Your task to perform on an android device: Add logitech g pro to the cart on bestbuy.com Image 0: 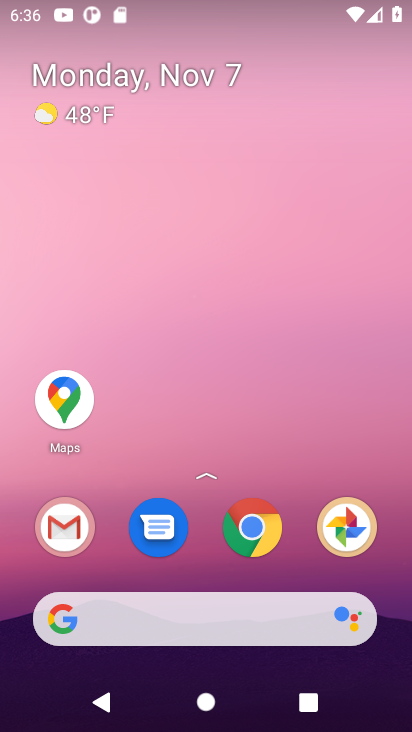
Step 0: click (239, 530)
Your task to perform on an android device: Add logitech g pro to the cart on bestbuy.com Image 1: 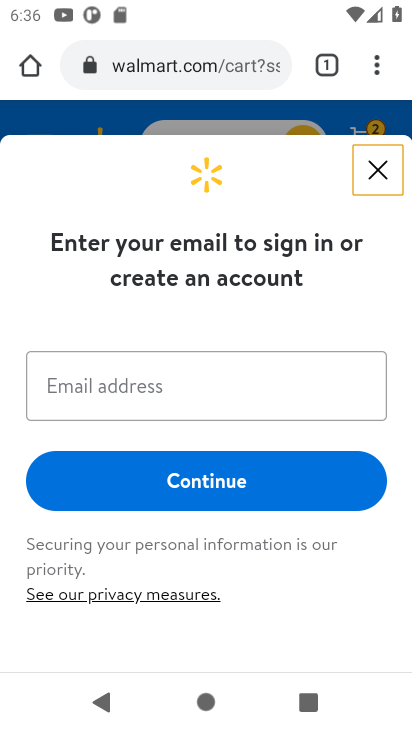
Step 1: click (186, 67)
Your task to perform on an android device: Add logitech g pro to the cart on bestbuy.com Image 2: 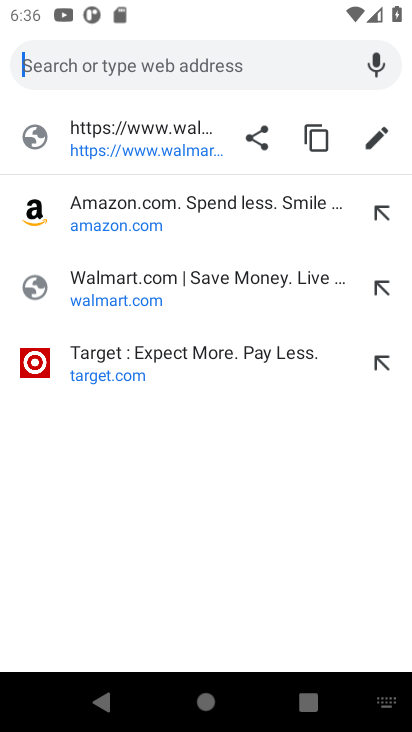
Step 2: type "bestbuy.com"
Your task to perform on an android device: Add logitech g pro to the cart on bestbuy.com Image 3: 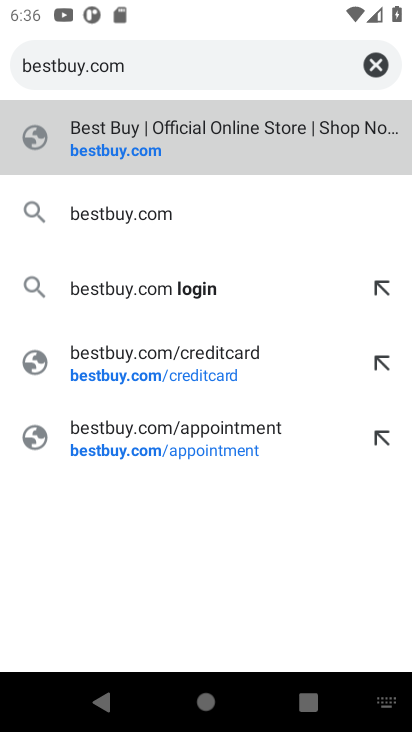
Step 3: click (212, 139)
Your task to perform on an android device: Add logitech g pro to the cart on bestbuy.com Image 4: 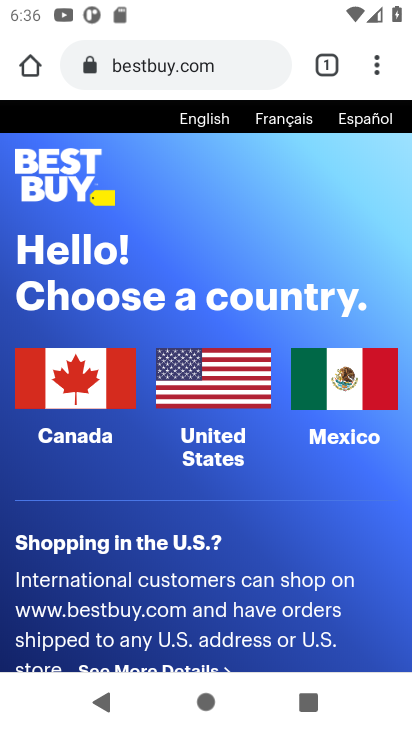
Step 4: click (183, 409)
Your task to perform on an android device: Add logitech g pro to the cart on bestbuy.com Image 5: 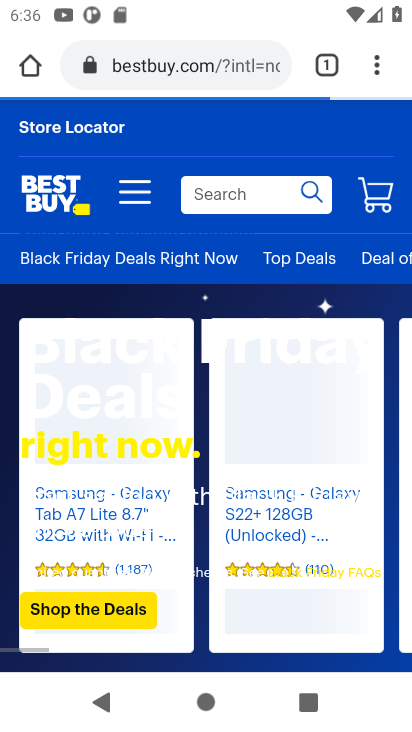
Step 5: click (240, 211)
Your task to perform on an android device: Add logitech g pro to the cart on bestbuy.com Image 6: 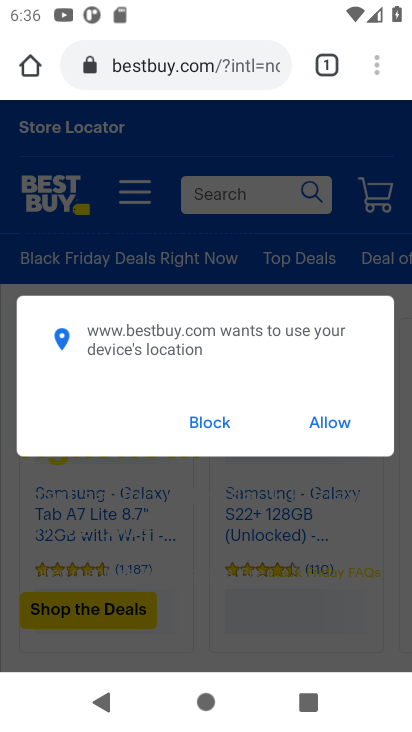
Step 6: type "logitech g pro"
Your task to perform on an android device: Add logitech g pro to the cart on bestbuy.com Image 7: 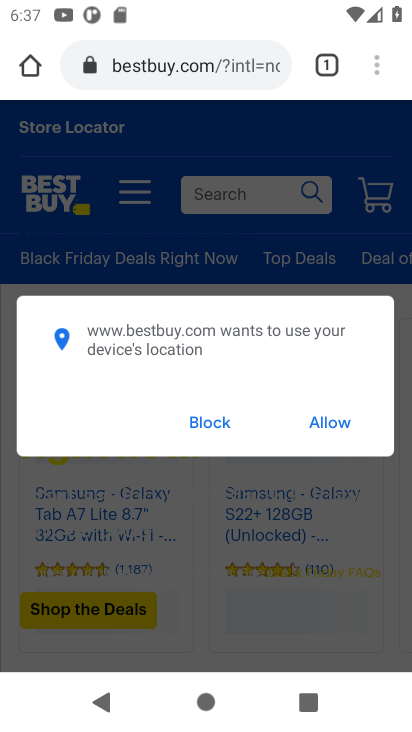
Step 7: click (320, 258)
Your task to perform on an android device: Add logitech g pro to the cart on bestbuy.com Image 8: 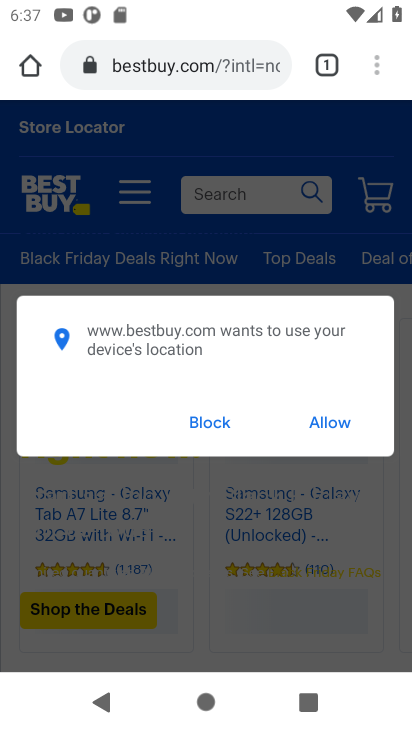
Step 8: click (332, 422)
Your task to perform on an android device: Add logitech g pro to the cart on bestbuy.com Image 9: 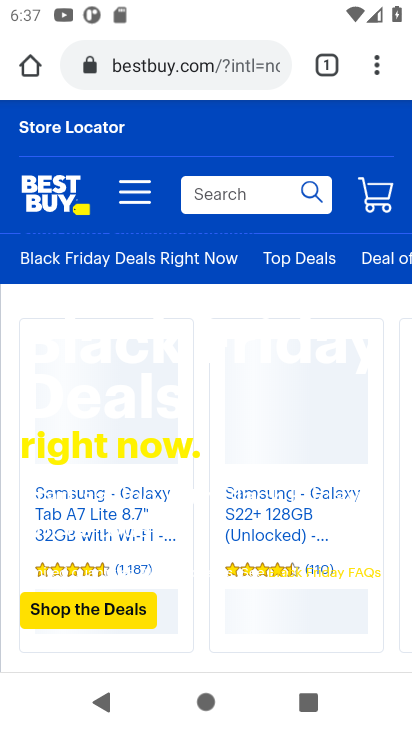
Step 9: click (210, 90)
Your task to perform on an android device: Add logitech g pro to the cart on bestbuy.com Image 10: 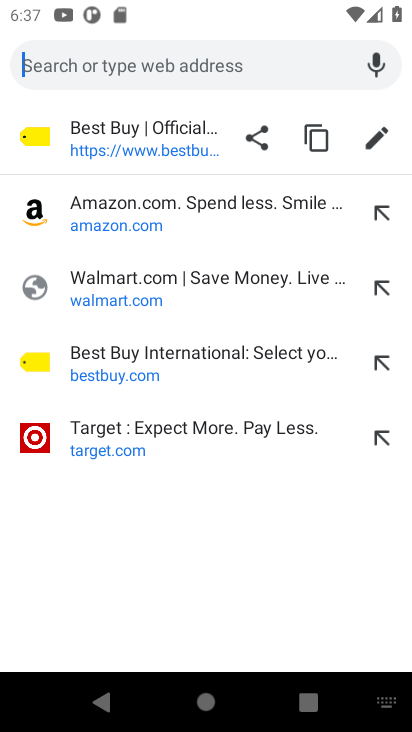
Step 10: click (76, 134)
Your task to perform on an android device: Add logitech g pro to the cart on bestbuy.com Image 11: 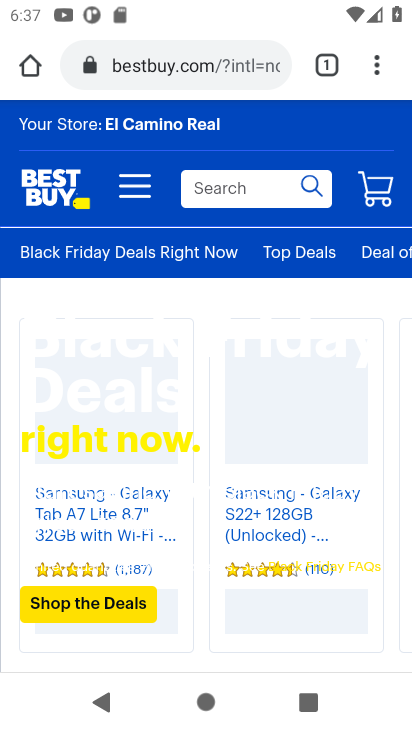
Step 11: click (225, 200)
Your task to perform on an android device: Add logitech g pro to the cart on bestbuy.com Image 12: 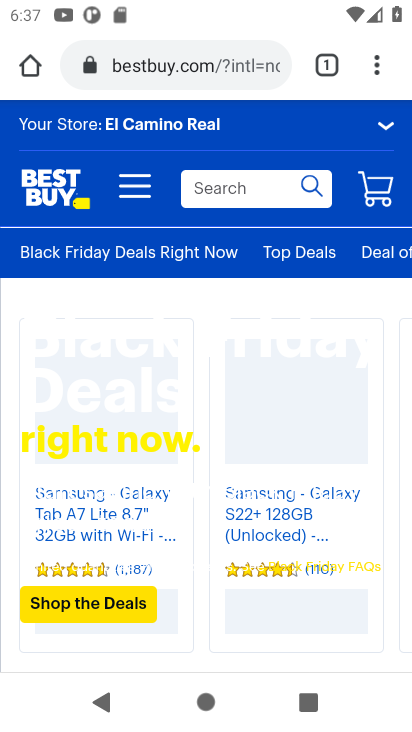
Step 12: type "logitech g pro"
Your task to perform on an android device: Add logitech g pro to the cart on bestbuy.com Image 13: 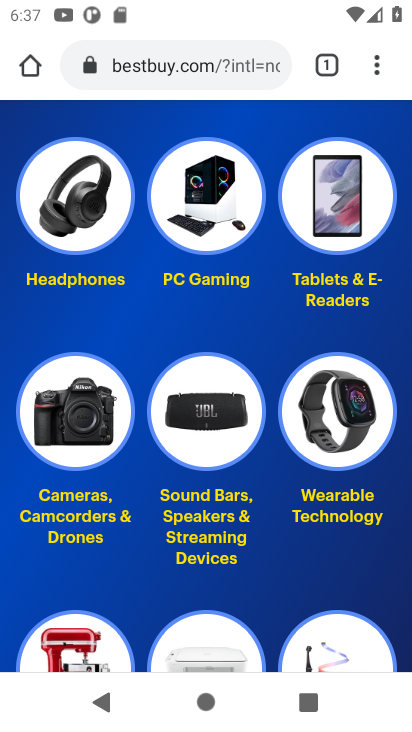
Step 13: drag from (280, 177) to (281, 468)
Your task to perform on an android device: Add logitech g pro to the cart on bestbuy.com Image 14: 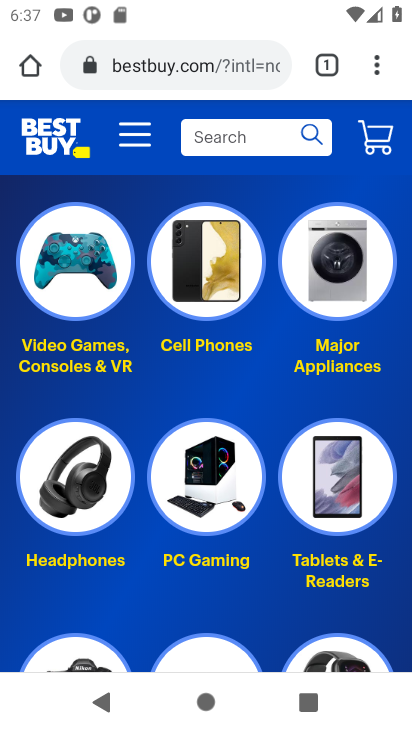
Step 14: click (234, 145)
Your task to perform on an android device: Add logitech g pro to the cart on bestbuy.com Image 15: 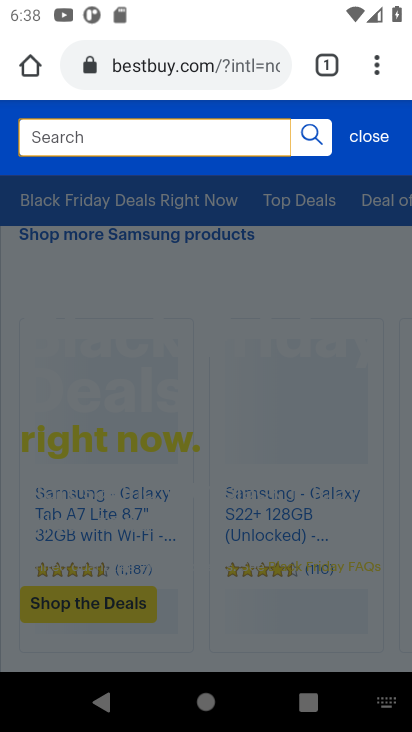
Step 15: type "logictech g pro"
Your task to perform on an android device: Add logitech g pro to the cart on bestbuy.com Image 16: 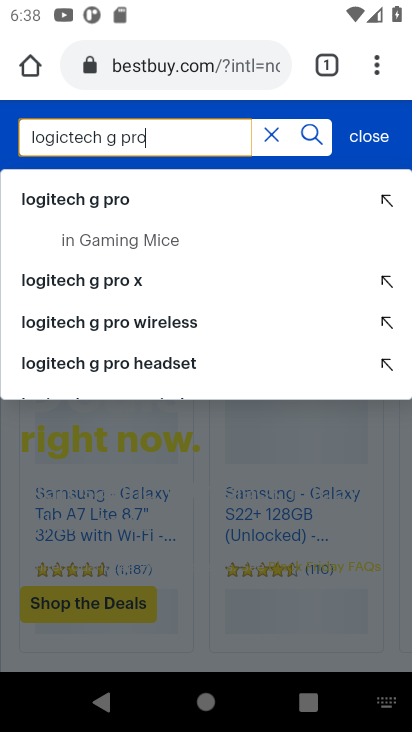
Step 16: click (131, 206)
Your task to perform on an android device: Add logitech g pro to the cart on bestbuy.com Image 17: 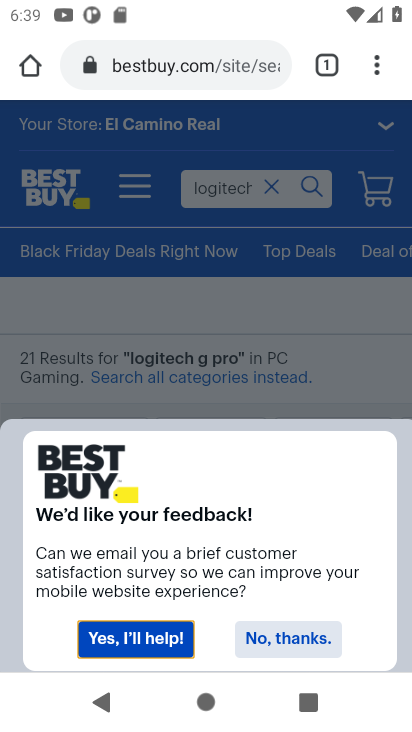
Step 17: click (170, 635)
Your task to perform on an android device: Add logitech g pro to the cart on bestbuy.com Image 18: 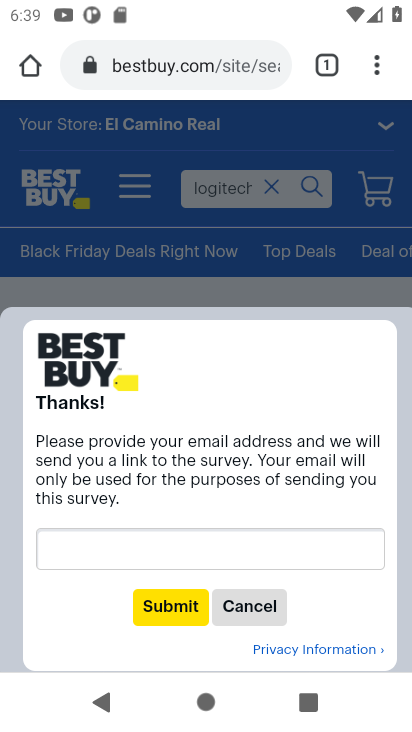
Step 18: click (246, 613)
Your task to perform on an android device: Add logitech g pro to the cart on bestbuy.com Image 19: 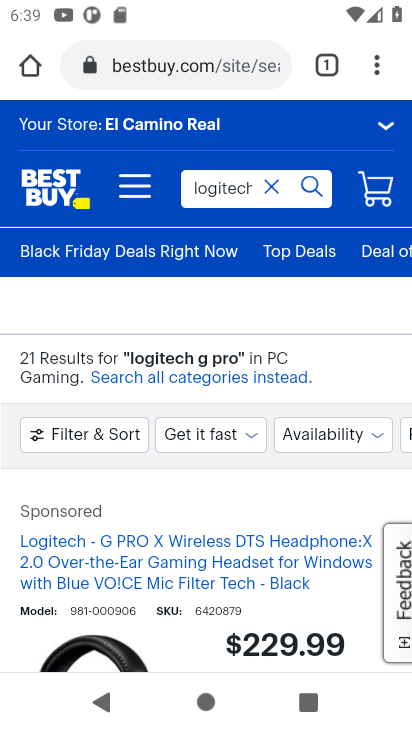
Step 19: drag from (307, 593) to (254, 387)
Your task to perform on an android device: Add logitech g pro to the cart on bestbuy.com Image 20: 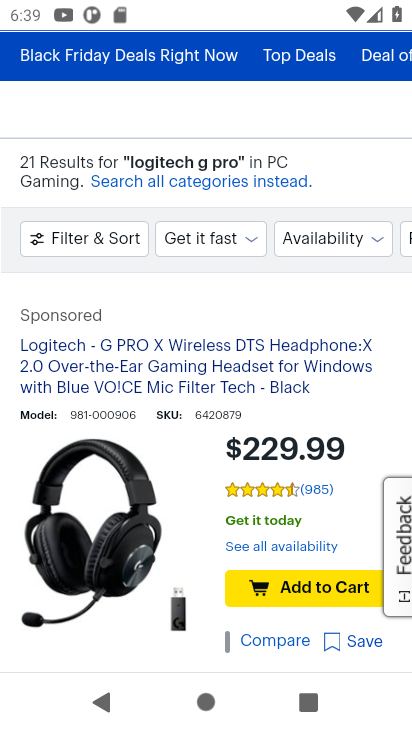
Step 20: click (312, 595)
Your task to perform on an android device: Add logitech g pro to the cart on bestbuy.com Image 21: 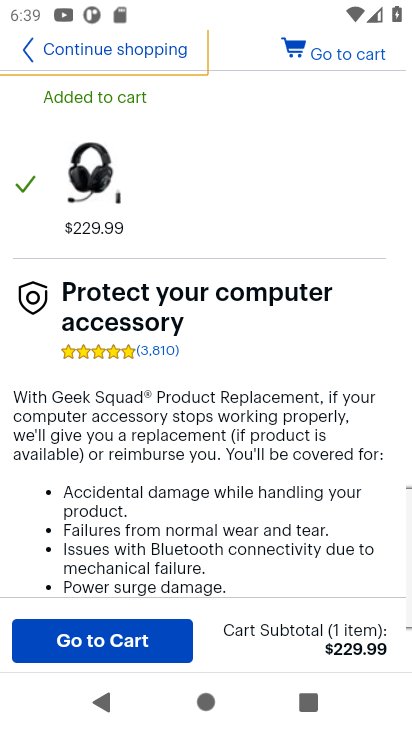
Step 21: task complete